Your task to perform on an android device: Open internet settings Image 0: 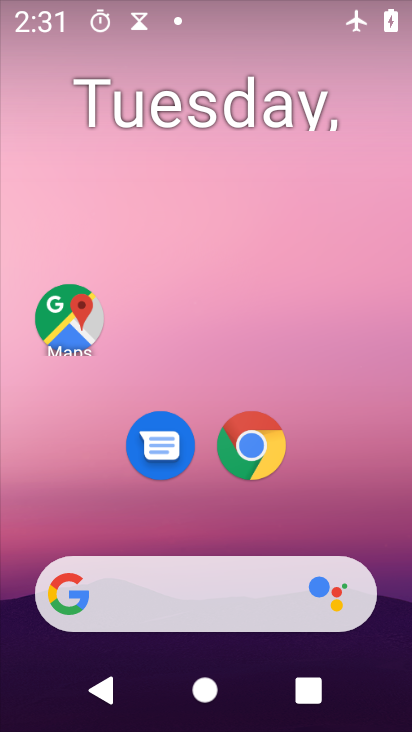
Step 0: drag from (346, 580) to (297, 2)
Your task to perform on an android device: Open internet settings Image 1: 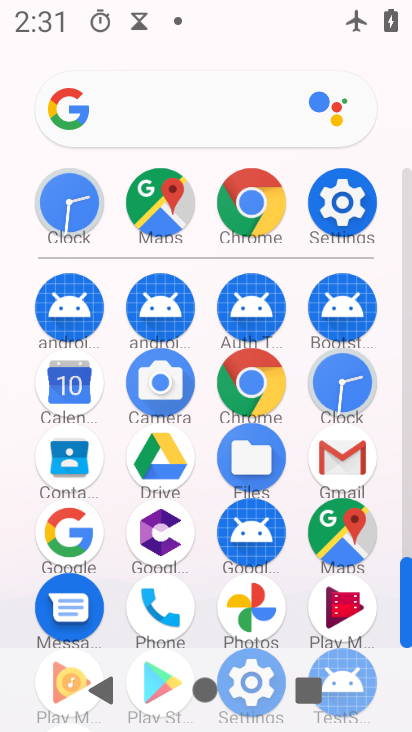
Step 1: click (330, 192)
Your task to perform on an android device: Open internet settings Image 2: 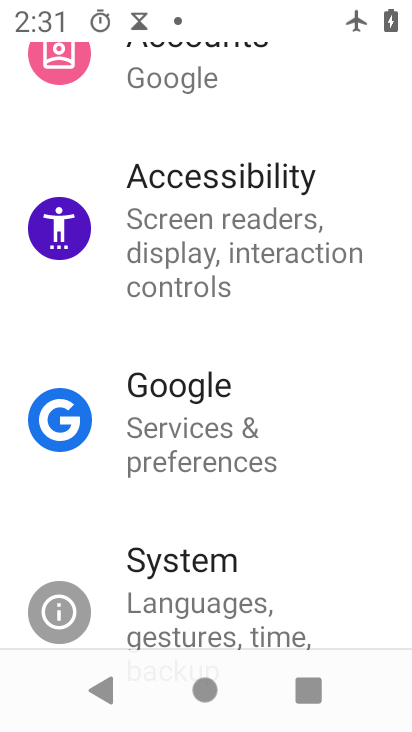
Step 2: drag from (229, 219) to (280, 725)
Your task to perform on an android device: Open internet settings Image 3: 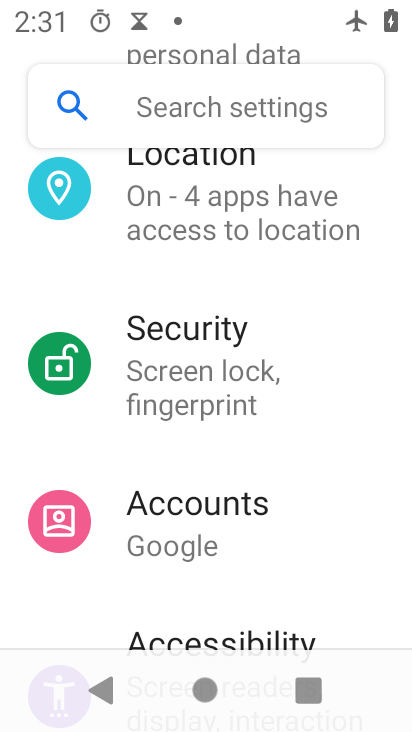
Step 3: drag from (255, 337) to (286, 638)
Your task to perform on an android device: Open internet settings Image 4: 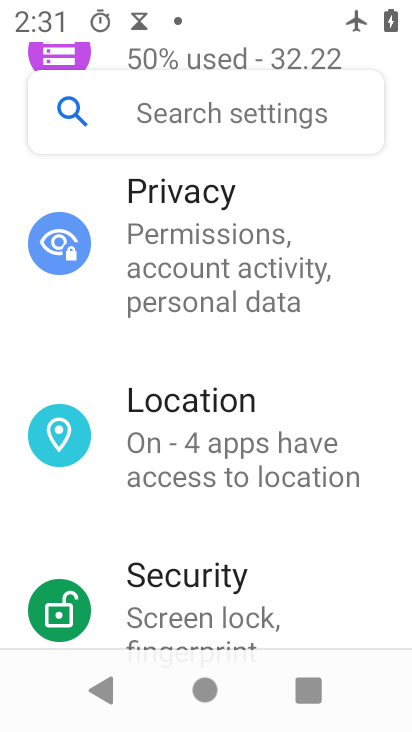
Step 4: drag from (213, 246) to (274, 620)
Your task to perform on an android device: Open internet settings Image 5: 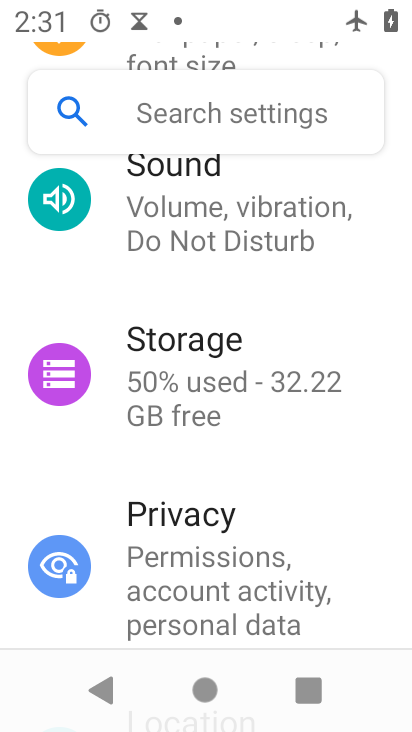
Step 5: drag from (275, 246) to (247, 688)
Your task to perform on an android device: Open internet settings Image 6: 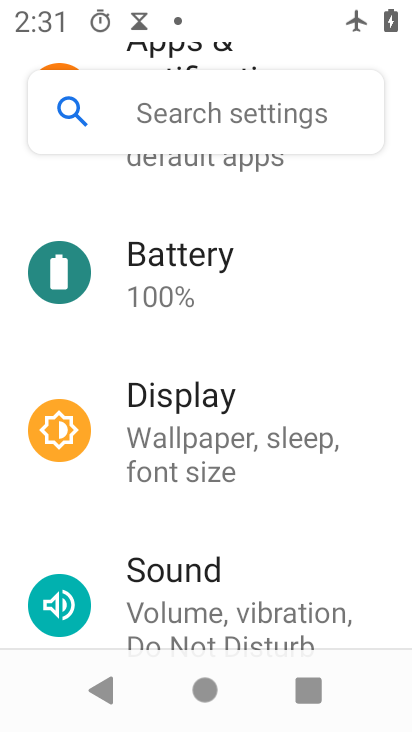
Step 6: drag from (221, 398) to (241, 672)
Your task to perform on an android device: Open internet settings Image 7: 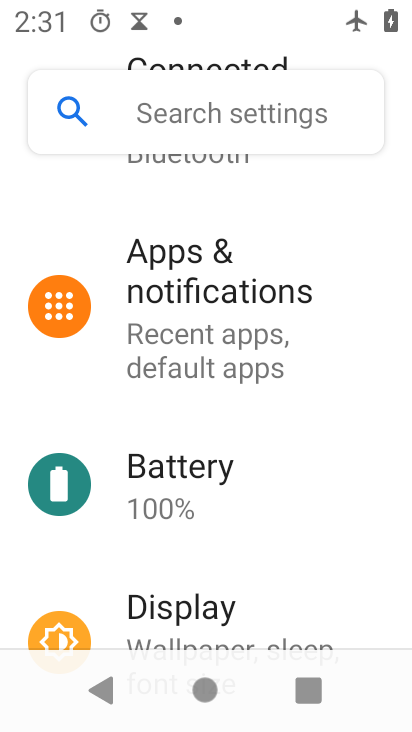
Step 7: drag from (220, 216) to (274, 688)
Your task to perform on an android device: Open internet settings Image 8: 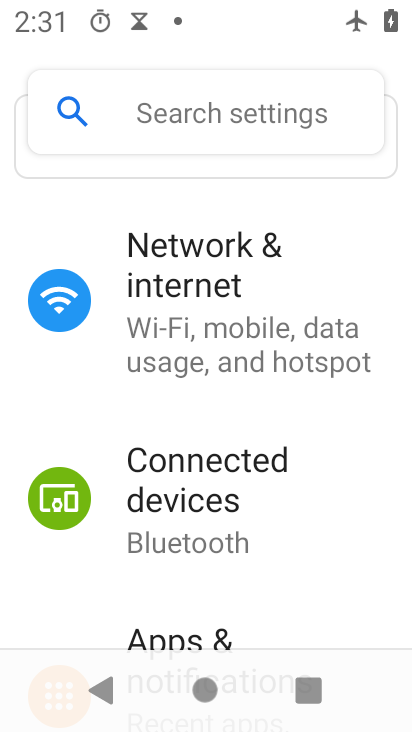
Step 8: click (222, 347)
Your task to perform on an android device: Open internet settings Image 9: 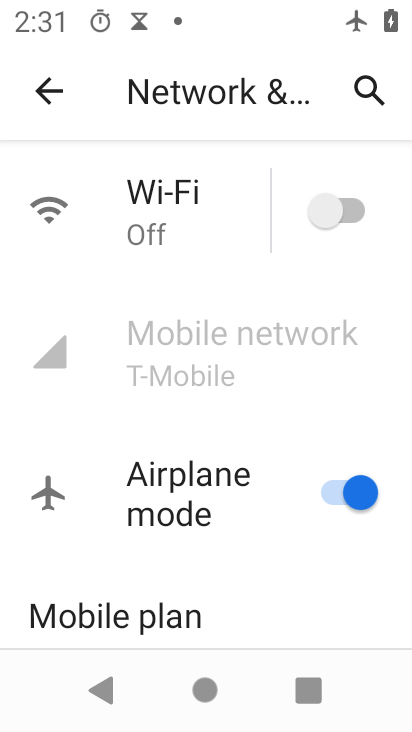
Step 9: task complete